Your task to perform on an android device: star an email in the gmail app Image 0: 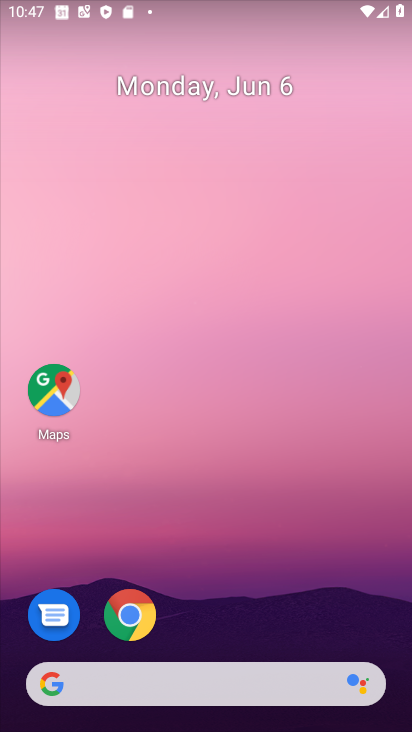
Step 0: drag from (293, 614) to (334, 151)
Your task to perform on an android device: star an email in the gmail app Image 1: 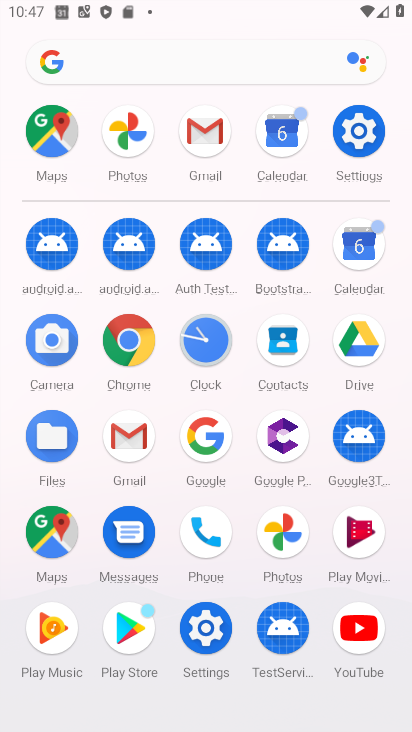
Step 1: click (204, 146)
Your task to perform on an android device: star an email in the gmail app Image 2: 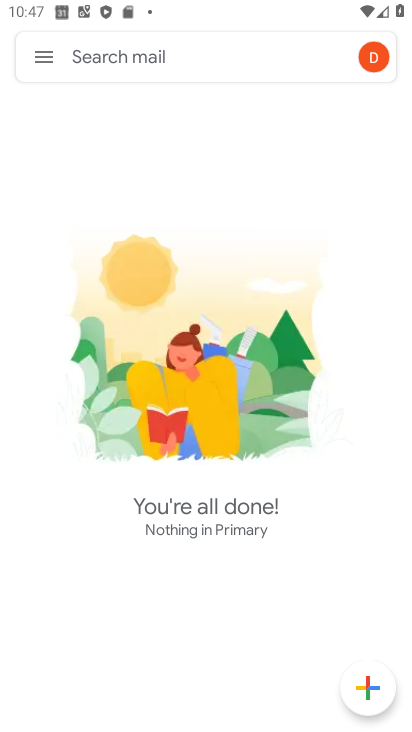
Step 2: task complete